Your task to perform on an android device: turn off sleep mode Image 0: 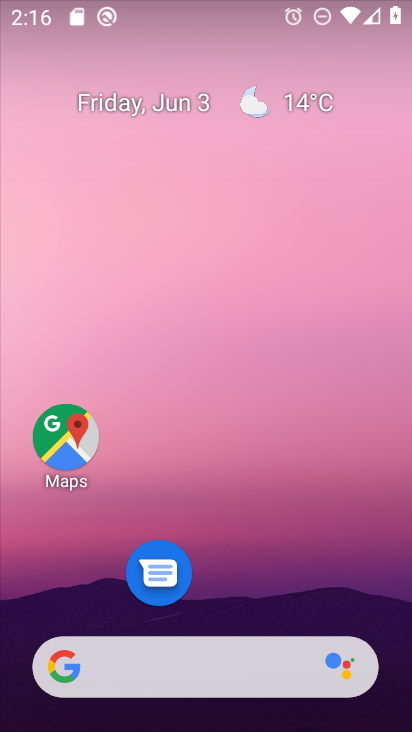
Step 0: drag from (337, 682) to (338, 11)
Your task to perform on an android device: turn off sleep mode Image 1: 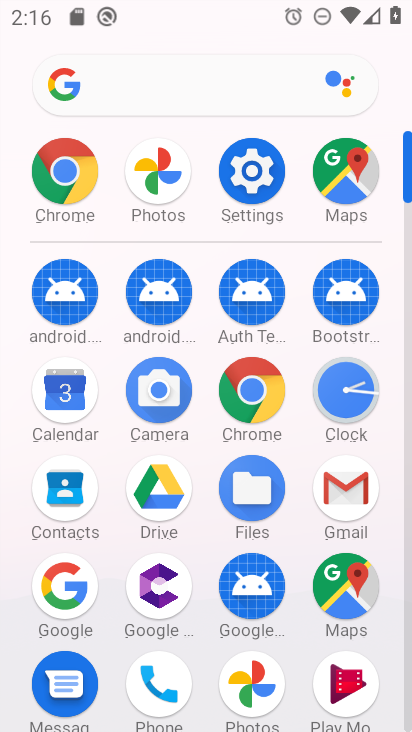
Step 1: click (254, 181)
Your task to perform on an android device: turn off sleep mode Image 2: 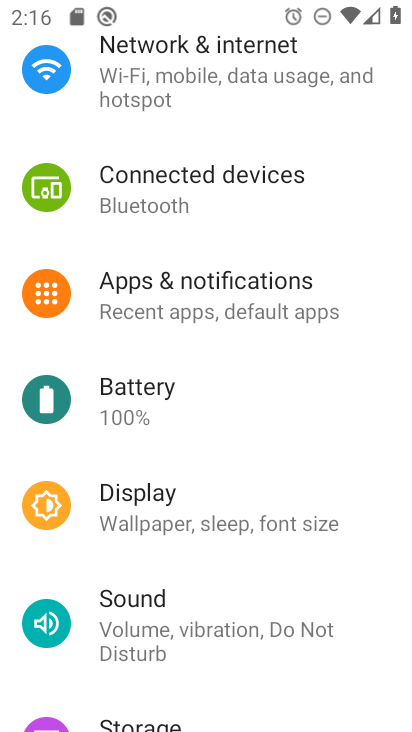
Step 2: click (250, 538)
Your task to perform on an android device: turn off sleep mode Image 3: 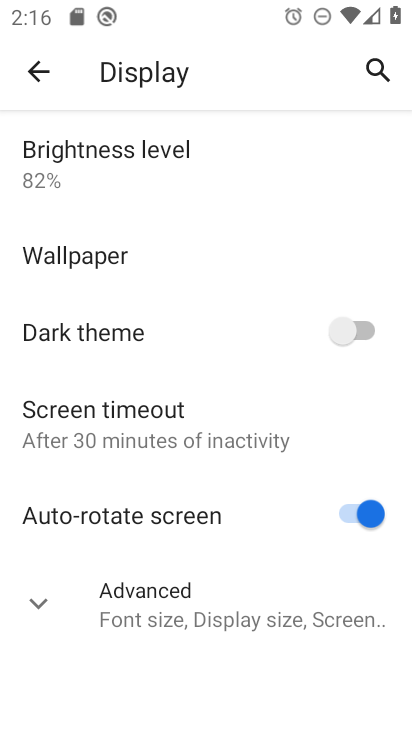
Step 3: task complete